Your task to perform on an android device: turn on the 12-hour format for clock Image 0: 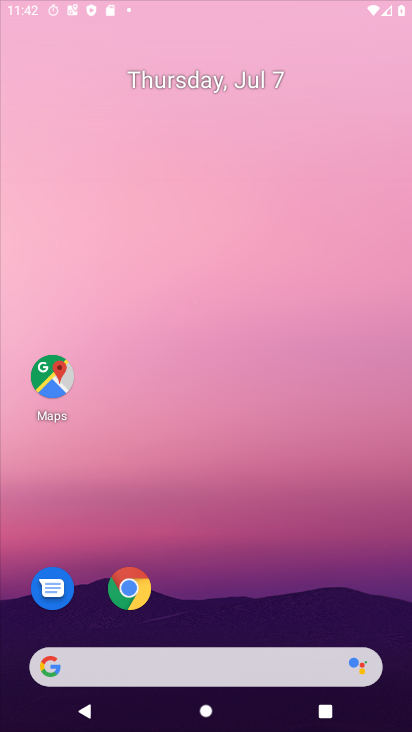
Step 0: click (224, 200)
Your task to perform on an android device: turn on the 12-hour format for clock Image 1: 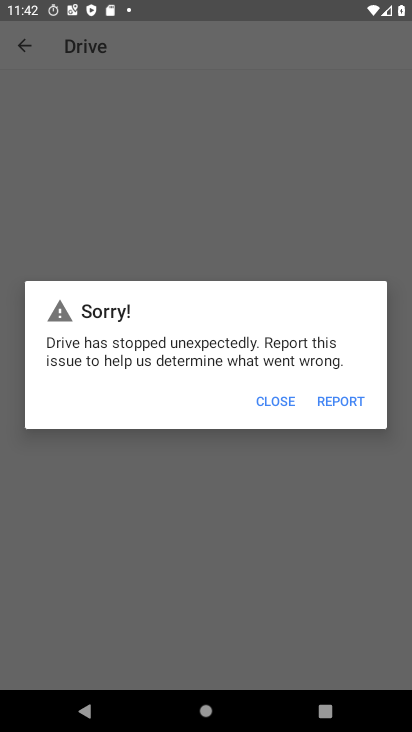
Step 1: drag from (210, 638) to (252, 245)
Your task to perform on an android device: turn on the 12-hour format for clock Image 2: 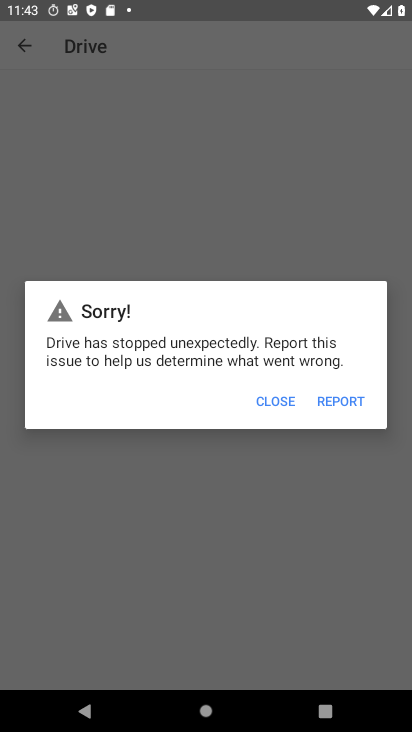
Step 2: press home button
Your task to perform on an android device: turn on the 12-hour format for clock Image 3: 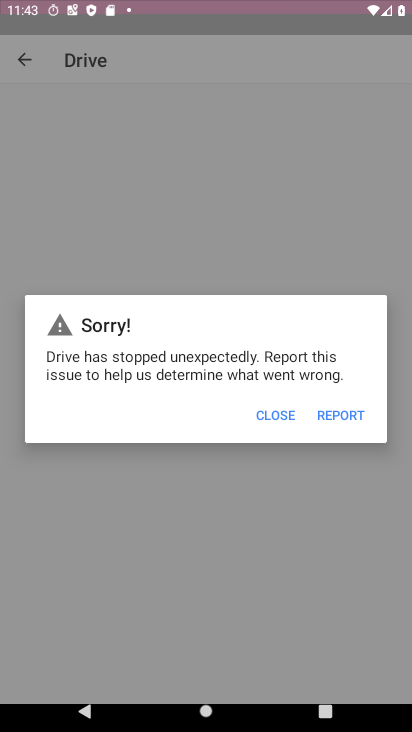
Step 3: drag from (196, 584) to (303, 168)
Your task to perform on an android device: turn on the 12-hour format for clock Image 4: 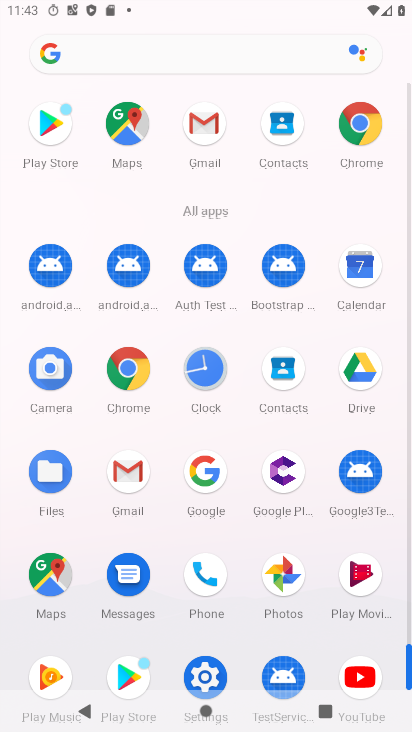
Step 4: click (207, 361)
Your task to perform on an android device: turn on the 12-hour format for clock Image 5: 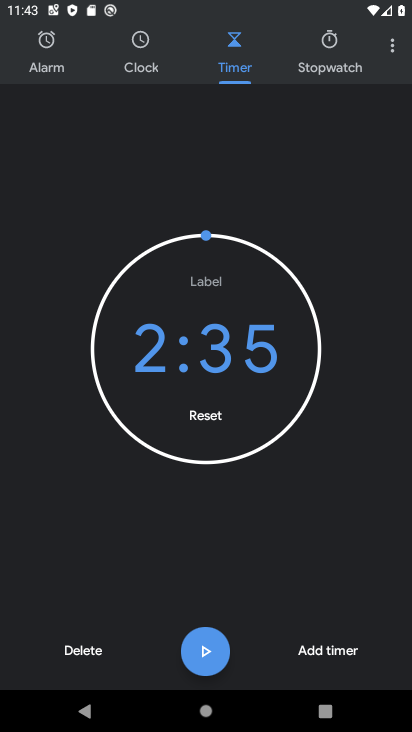
Step 5: click (386, 43)
Your task to perform on an android device: turn on the 12-hour format for clock Image 6: 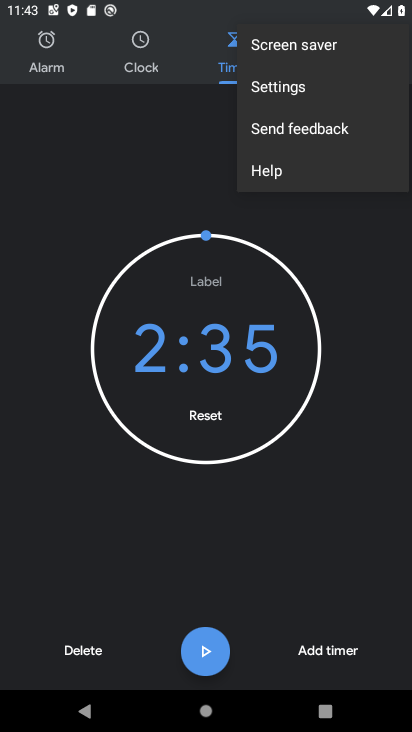
Step 6: click (279, 94)
Your task to perform on an android device: turn on the 12-hour format for clock Image 7: 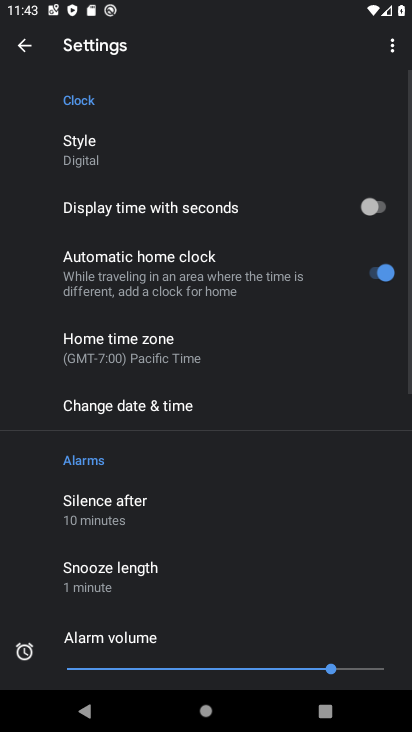
Step 7: drag from (216, 496) to (265, 171)
Your task to perform on an android device: turn on the 12-hour format for clock Image 8: 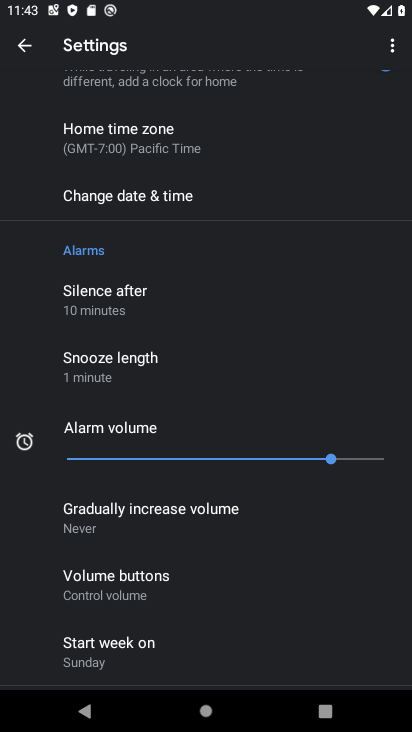
Step 8: drag from (192, 192) to (265, 696)
Your task to perform on an android device: turn on the 12-hour format for clock Image 9: 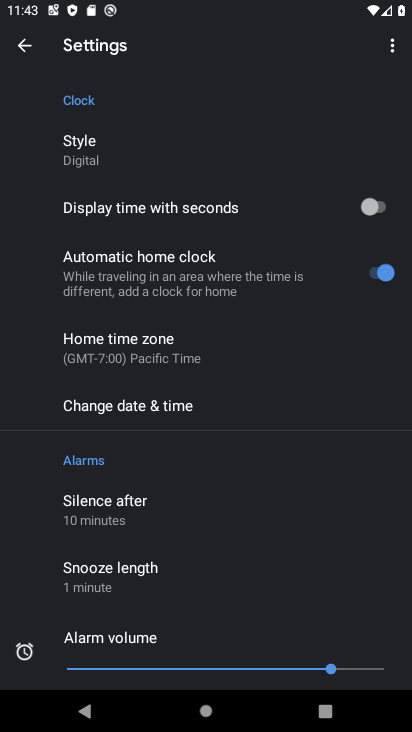
Step 9: drag from (211, 144) to (410, 661)
Your task to perform on an android device: turn on the 12-hour format for clock Image 10: 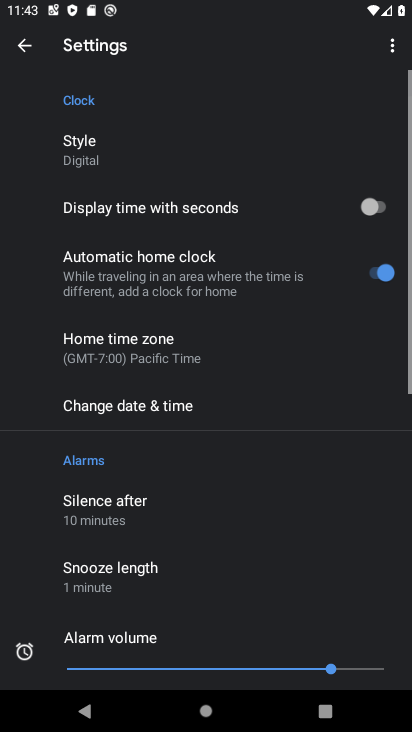
Step 10: drag from (179, 685) to (52, 565)
Your task to perform on an android device: turn on the 12-hour format for clock Image 11: 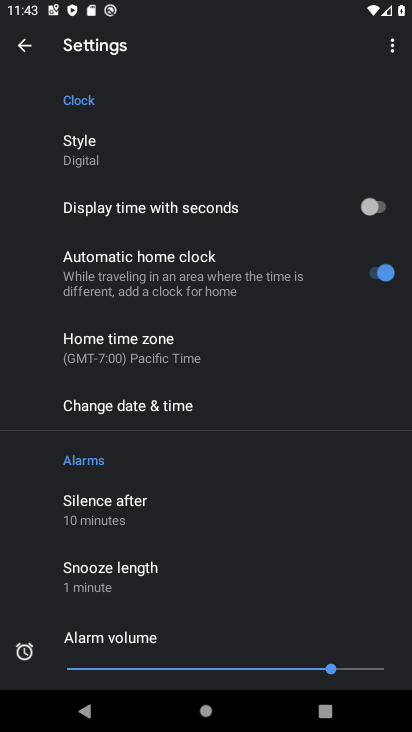
Step 11: drag from (213, 633) to (306, 107)
Your task to perform on an android device: turn on the 12-hour format for clock Image 12: 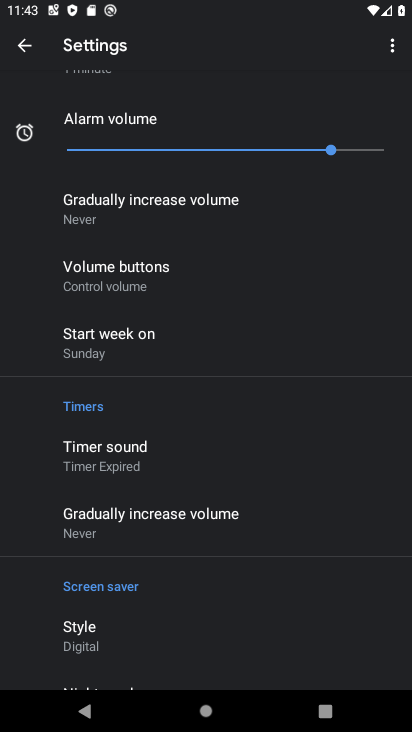
Step 12: drag from (179, 645) to (315, 186)
Your task to perform on an android device: turn on the 12-hour format for clock Image 13: 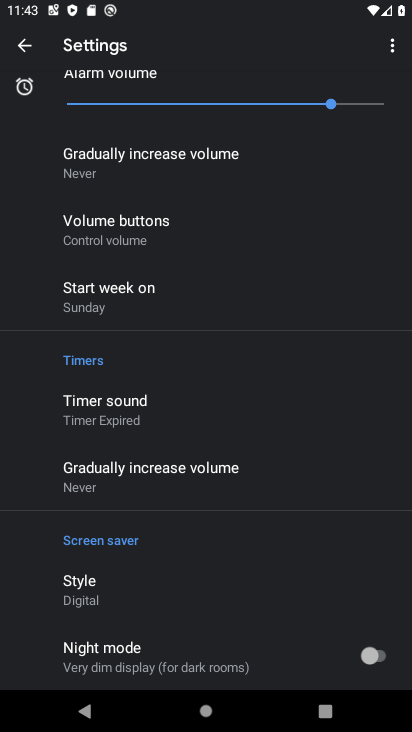
Step 13: drag from (192, 537) to (265, 316)
Your task to perform on an android device: turn on the 12-hour format for clock Image 14: 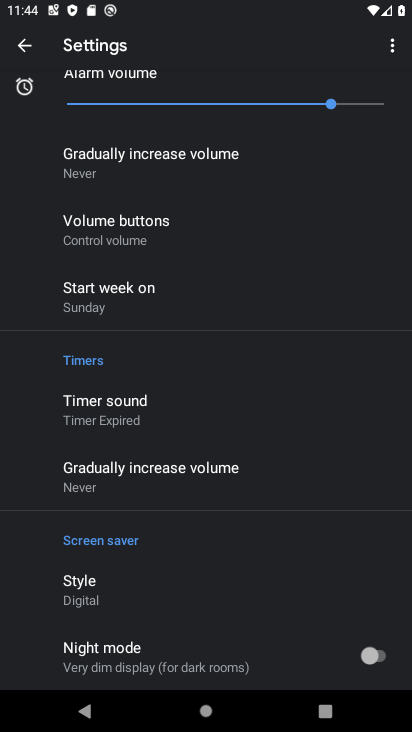
Step 14: drag from (180, 630) to (291, 383)
Your task to perform on an android device: turn on the 12-hour format for clock Image 15: 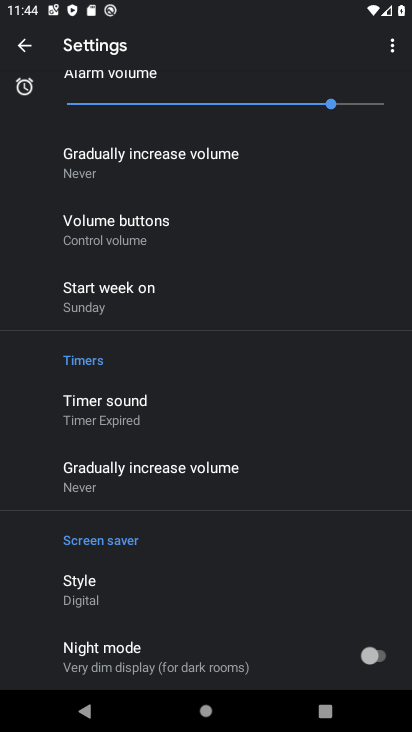
Step 15: drag from (188, 282) to (256, 731)
Your task to perform on an android device: turn on the 12-hour format for clock Image 16: 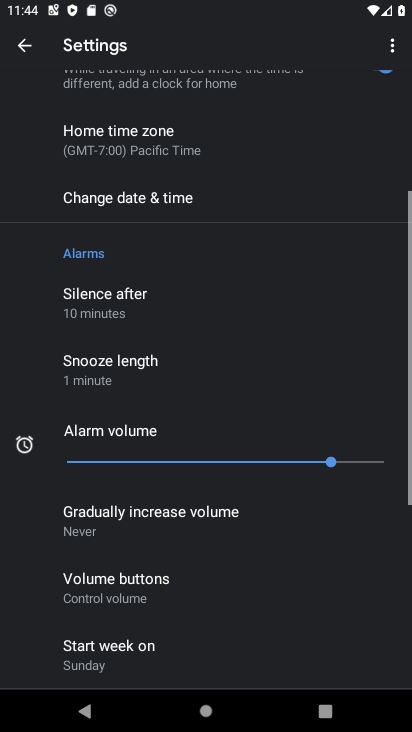
Step 16: drag from (232, 281) to (342, 698)
Your task to perform on an android device: turn on the 12-hour format for clock Image 17: 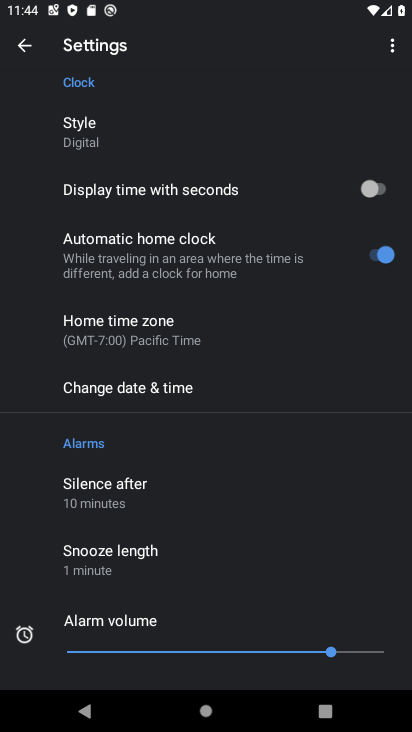
Step 17: drag from (169, 130) to (172, 721)
Your task to perform on an android device: turn on the 12-hour format for clock Image 18: 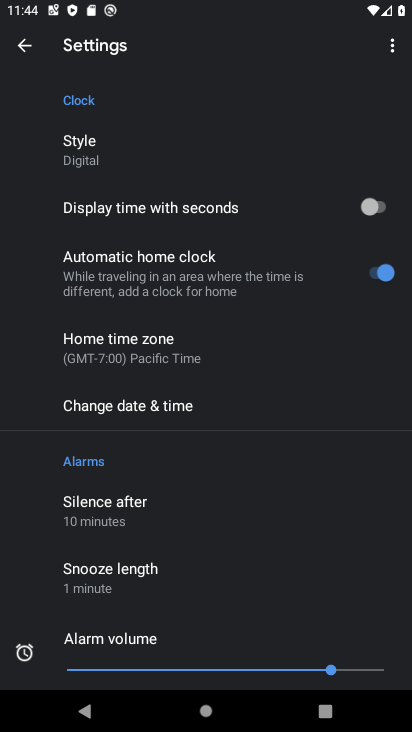
Step 18: drag from (113, 148) to (206, 539)
Your task to perform on an android device: turn on the 12-hour format for clock Image 19: 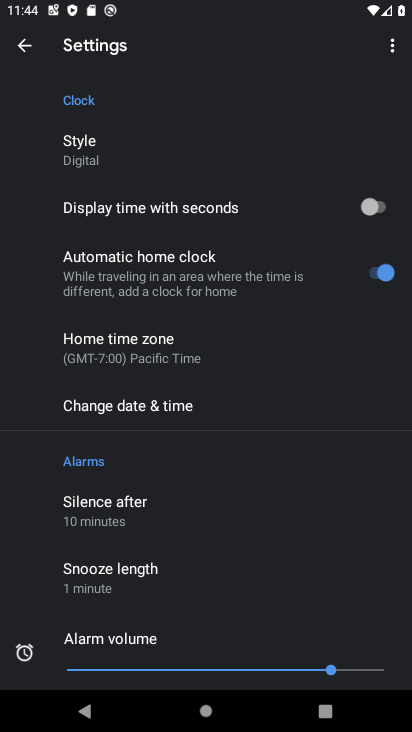
Step 19: click (179, 415)
Your task to perform on an android device: turn on the 12-hour format for clock Image 20: 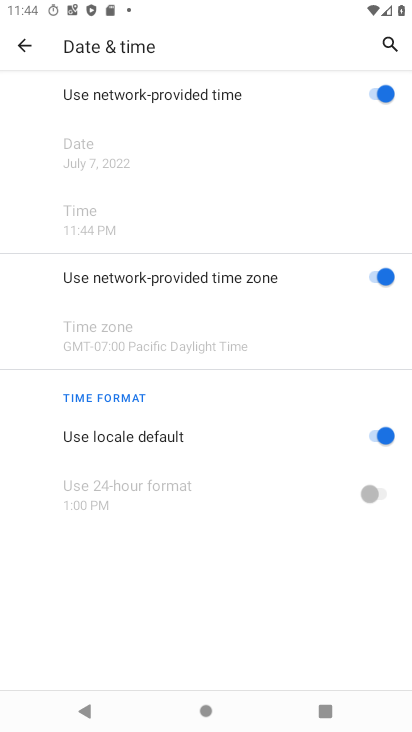
Step 20: click (380, 435)
Your task to perform on an android device: turn on the 12-hour format for clock Image 21: 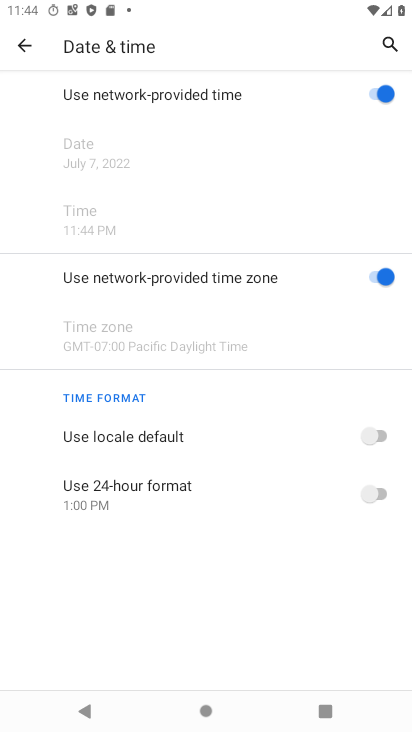
Step 21: click (369, 441)
Your task to perform on an android device: turn on the 12-hour format for clock Image 22: 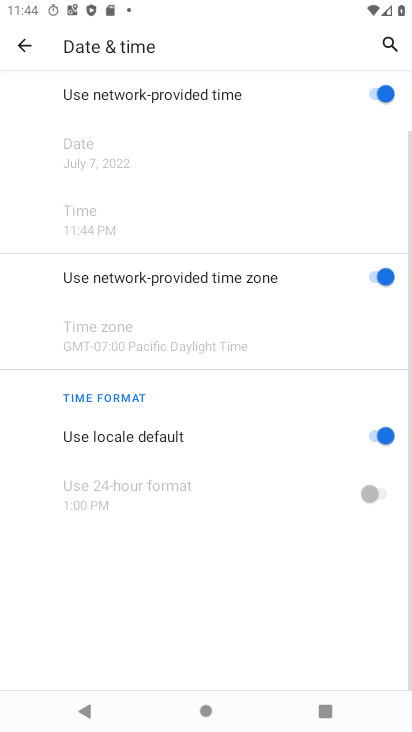
Step 22: click (388, 442)
Your task to perform on an android device: turn on the 12-hour format for clock Image 23: 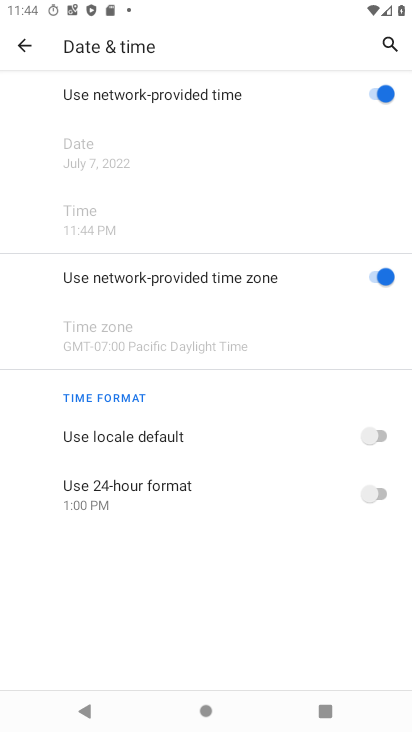
Step 23: click (367, 499)
Your task to perform on an android device: turn on the 12-hour format for clock Image 24: 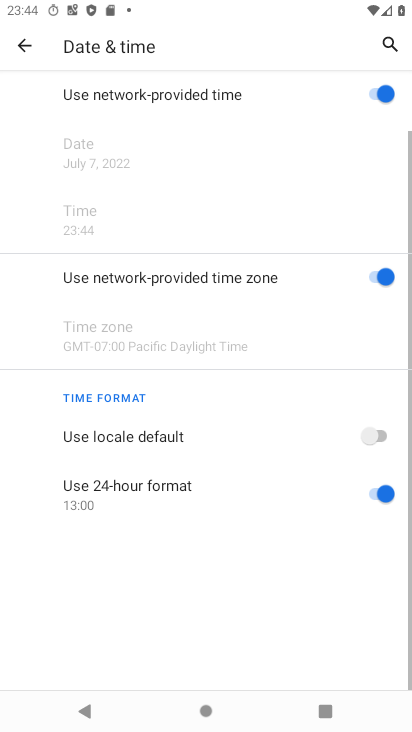
Step 24: task complete